Your task to perform on an android device: snooze an email in the gmail app Image 0: 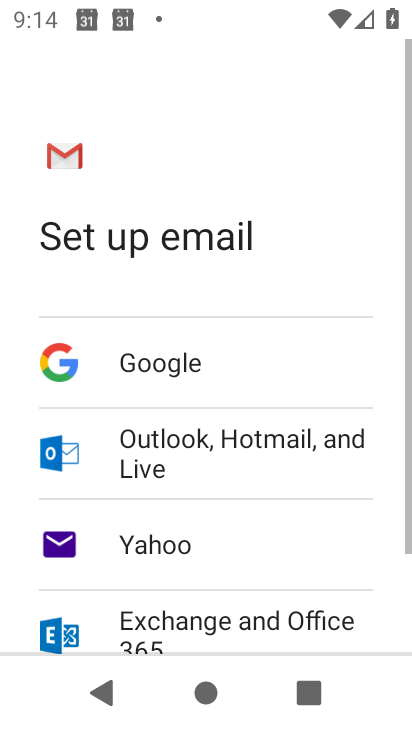
Step 0: press home button
Your task to perform on an android device: snooze an email in the gmail app Image 1: 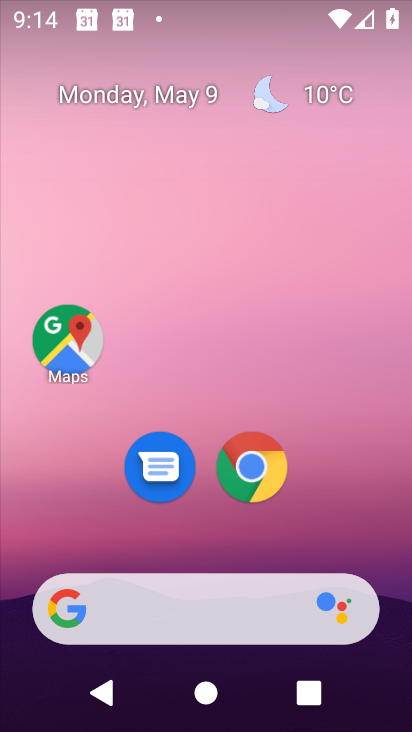
Step 1: drag from (344, 544) to (332, 4)
Your task to perform on an android device: snooze an email in the gmail app Image 2: 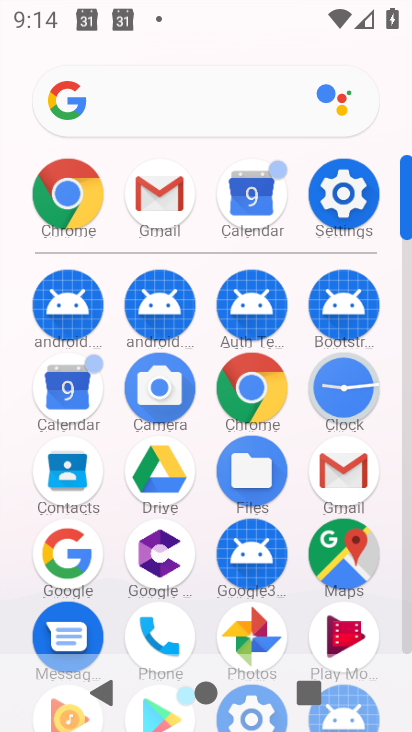
Step 2: click (164, 193)
Your task to perform on an android device: snooze an email in the gmail app Image 3: 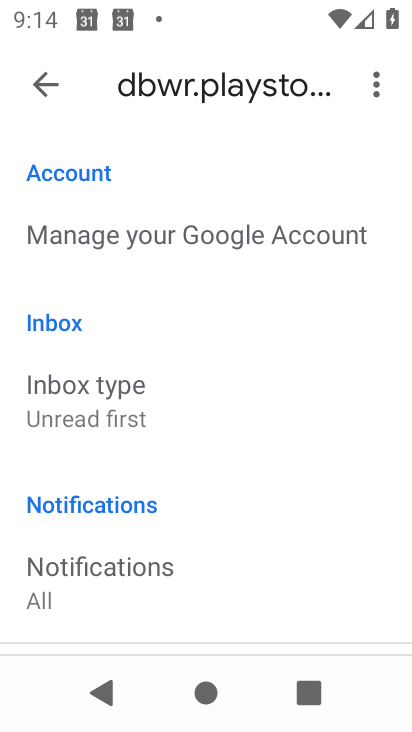
Step 3: click (43, 93)
Your task to perform on an android device: snooze an email in the gmail app Image 4: 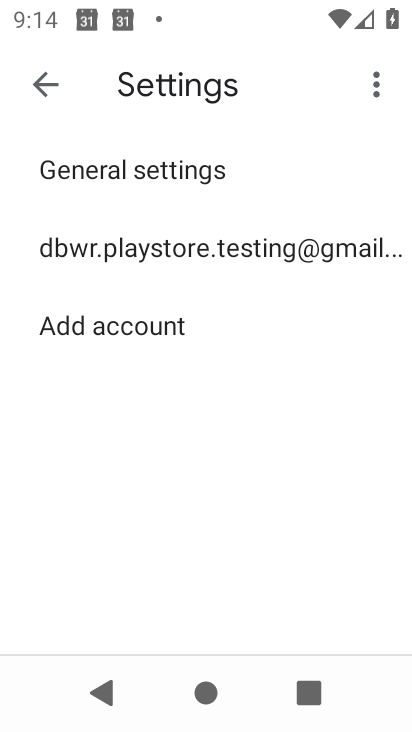
Step 4: click (43, 93)
Your task to perform on an android device: snooze an email in the gmail app Image 5: 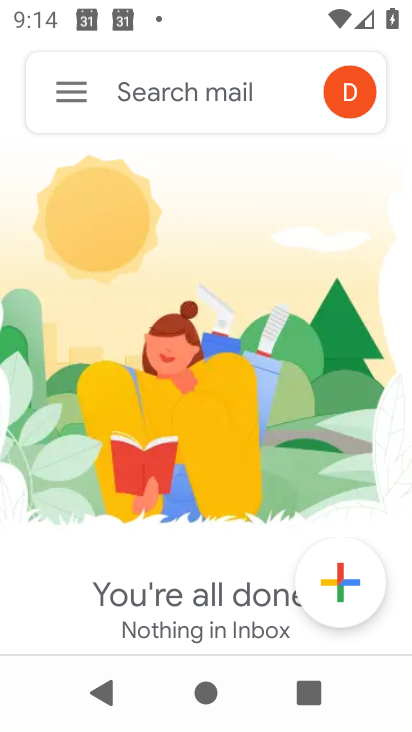
Step 5: click (62, 96)
Your task to perform on an android device: snooze an email in the gmail app Image 6: 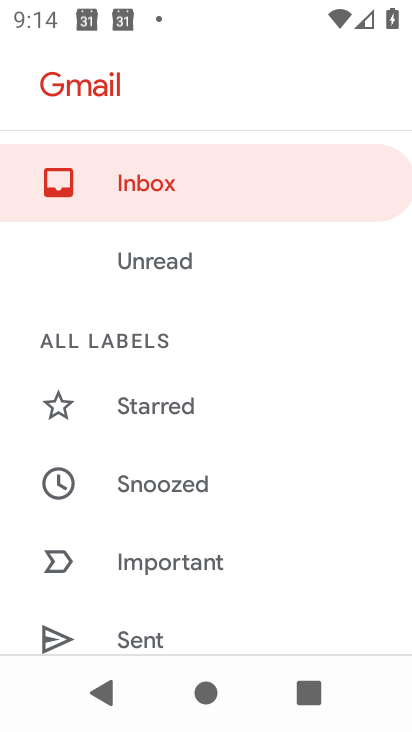
Step 6: drag from (184, 416) to (188, 116)
Your task to perform on an android device: snooze an email in the gmail app Image 7: 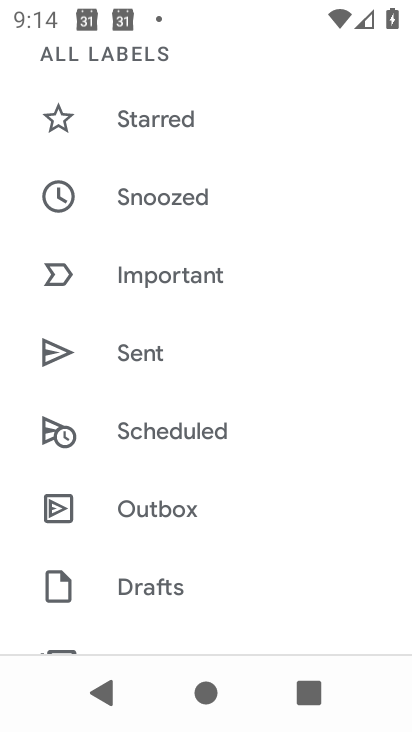
Step 7: drag from (159, 512) to (166, 143)
Your task to perform on an android device: snooze an email in the gmail app Image 8: 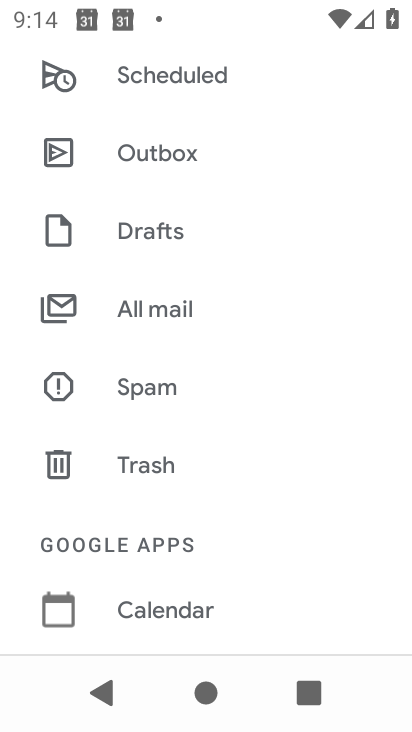
Step 8: click (149, 319)
Your task to perform on an android device: snooze an email in the gmail app Image 9: 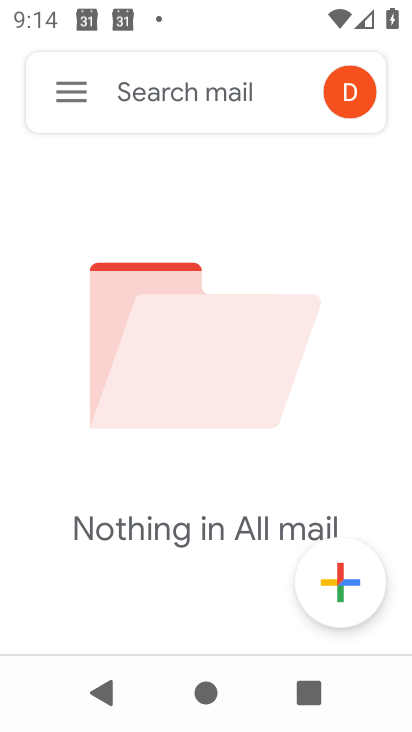
Step 9: task complete